Your task to perform on an android device: delete location history Image 0: 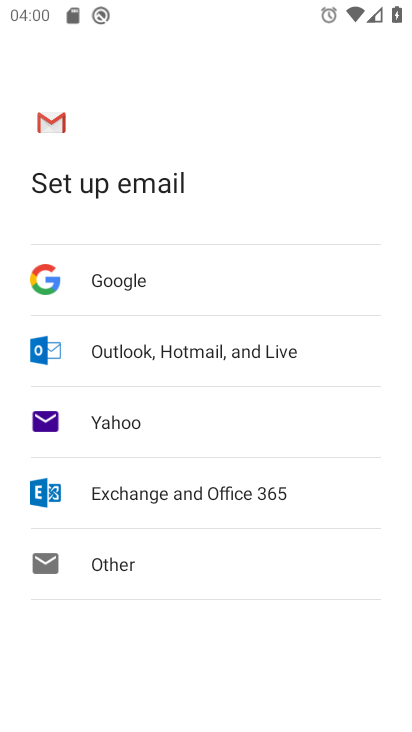
Step 0: press home button
Your task to perform on an android device: delete location history Image 1: 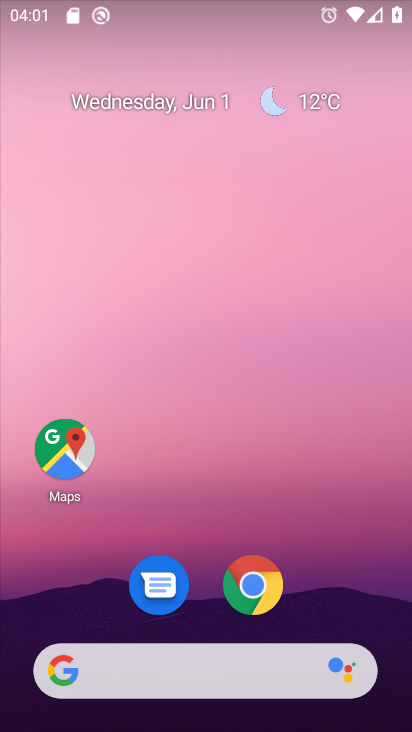
Step 1: drag from (198, 549) to (235, 35)
Your task to perform on an android device: delete location history Image 2: 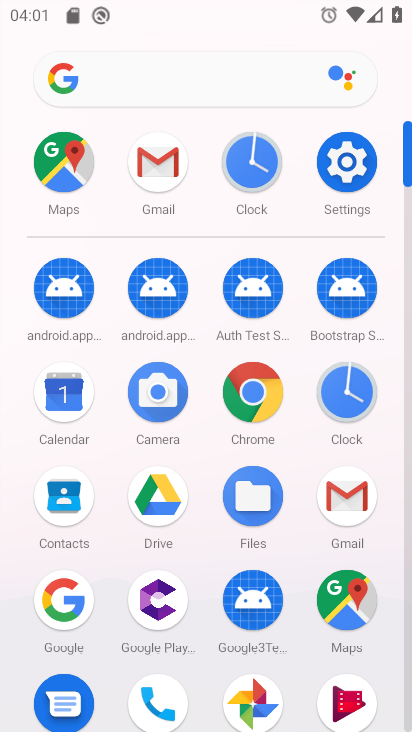
Step 2: click (351, 165)
Your task to perform on an android device: delete location history Image 3: 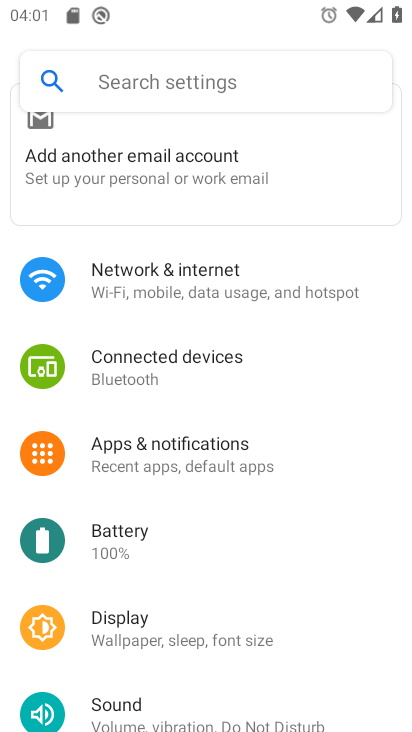
Step 3: press home button
Your task to perform on an android device: delete location history Image 4: 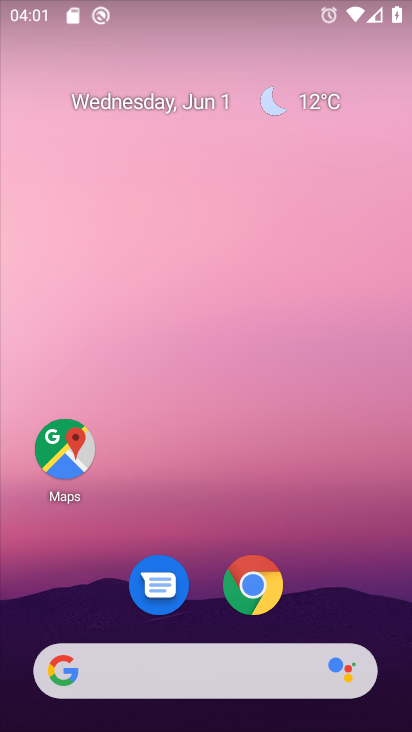
Step 4: click (68, 448)
Your task to perform on an android device: delete location history Image 5: 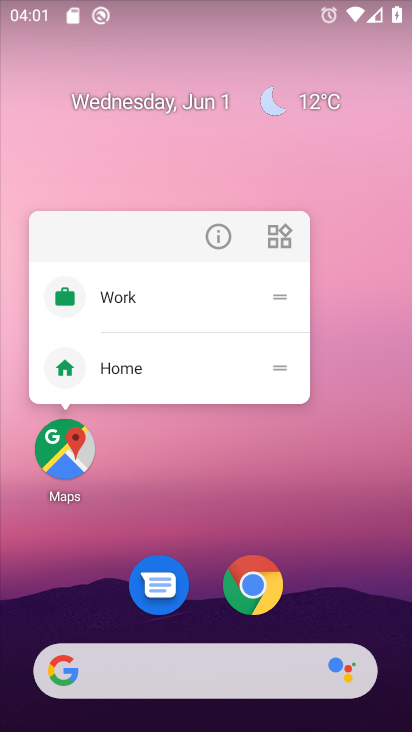
Step 5: click (68, 448)
Your task to perform on an android device: delete location history Image 6: 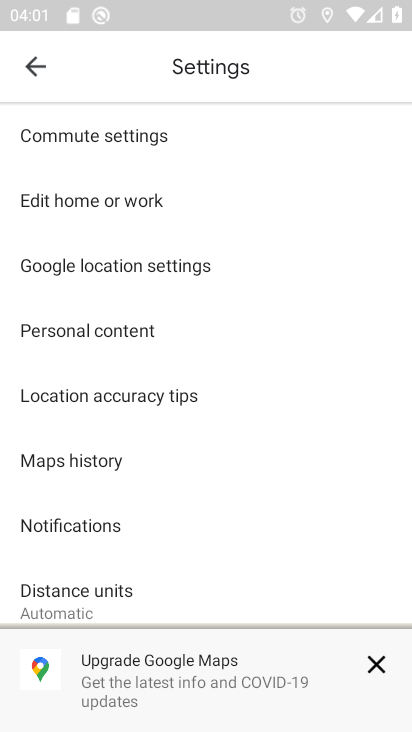
Step 6: click (34, 62)
Your task to perform on an android device: delete location history Image 7: 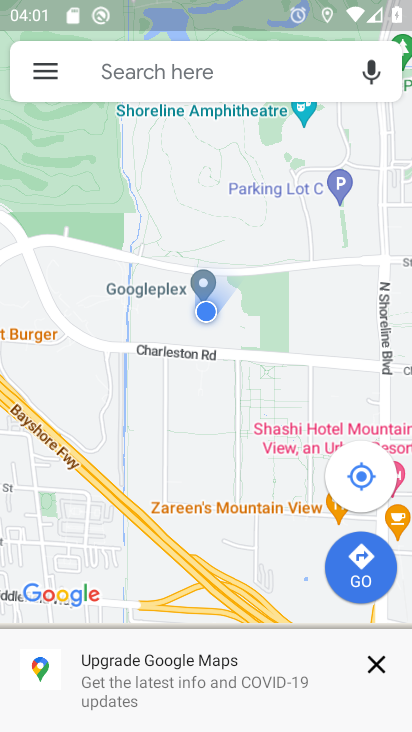
Step 7: click (47, 70)
Your task to perform on an android device: delete location history Image 8: 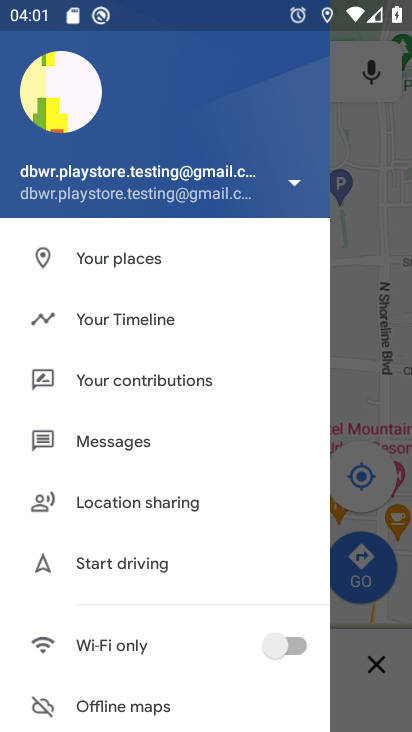
Step 8: click (98, 308)
Your task to perform on an android device: delete location history Image 9: 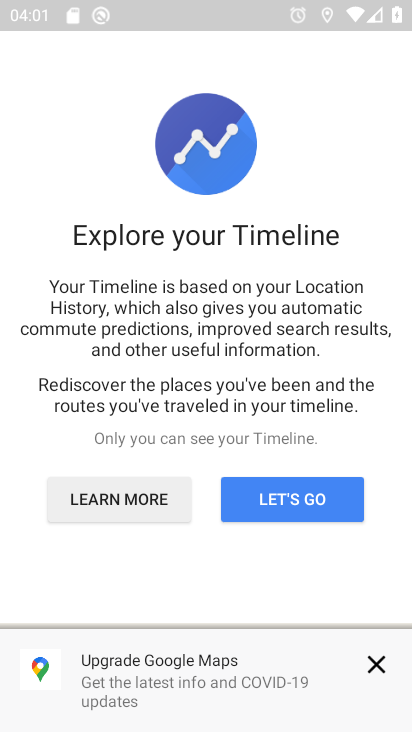
Step 9: click (290, 488)
Your task to perform on an android device: delete location history Image 10: 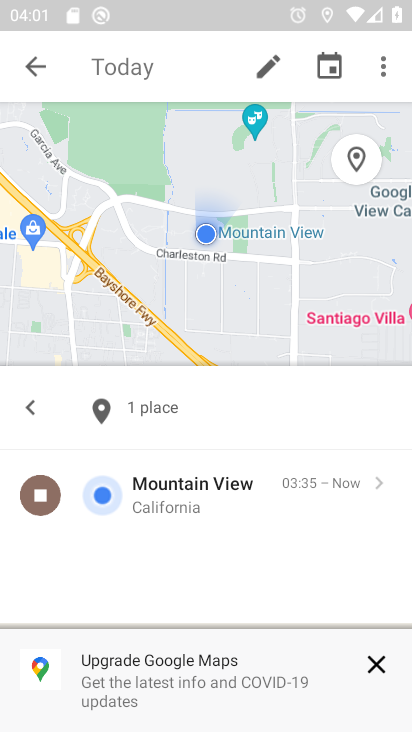
Step 10: click (382, 69)
Your task to perform on an android device: delete location history Image 11: 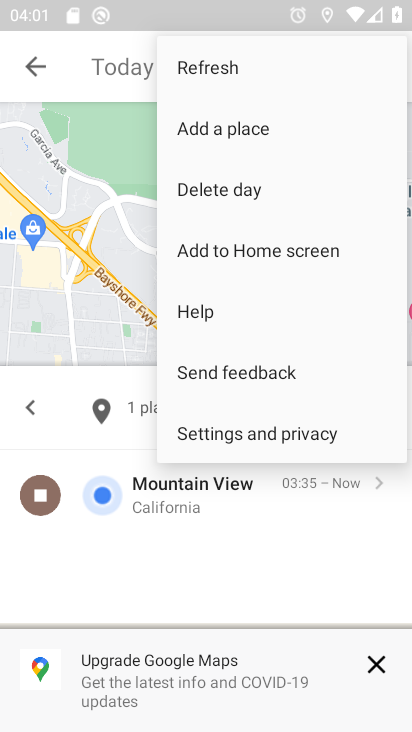
Step 11: click (282, 426)
Your task to perform on an android device: delete location history Image 12: 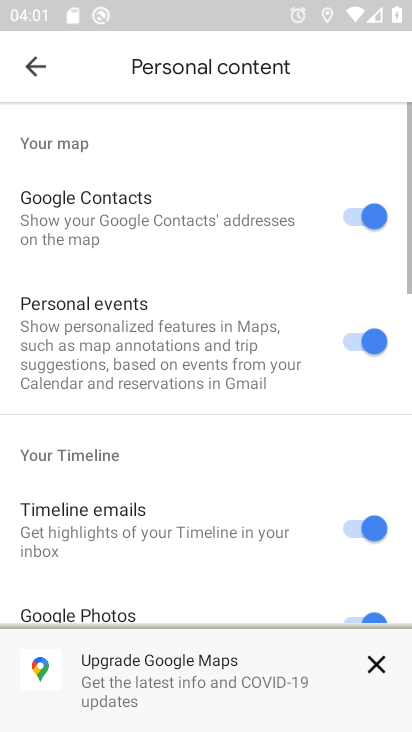
Step 12: drag from (237, 582) to (269, 108)
Your task to perform on an android device: delete location history Image 13: 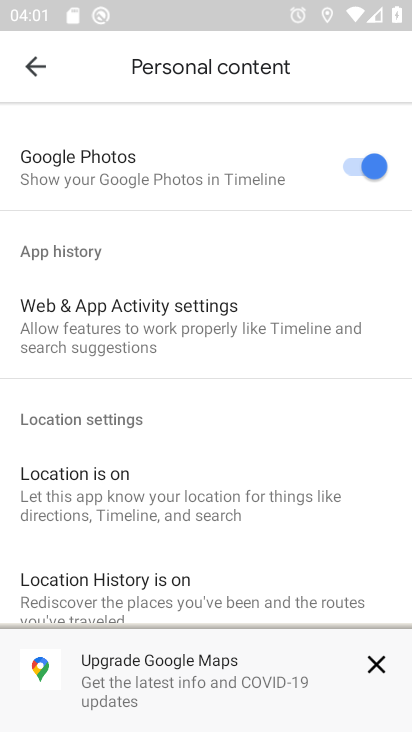
Step 13: drag from (199, 566) to (245, 144)
Your task to perform on an android device: delete location history Image 14: 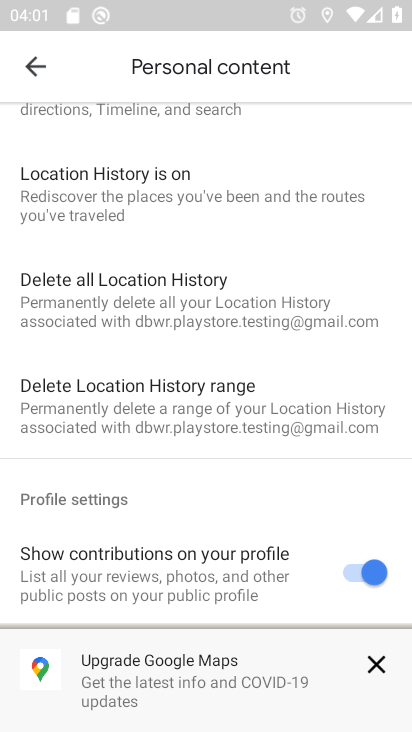
Step 14: click (171, 296)
Your task to perform on an android device: delete location history Image 15: 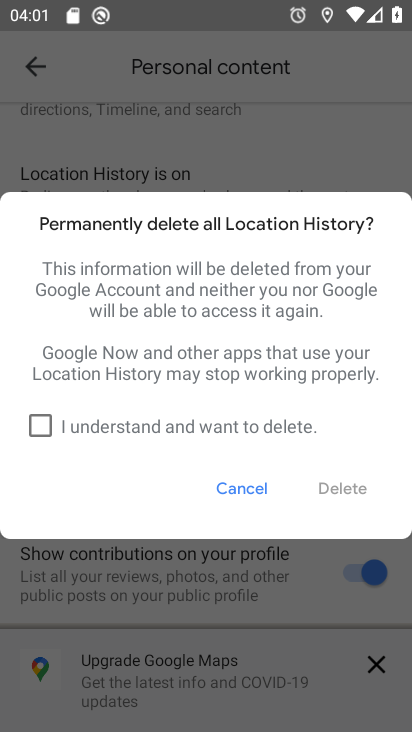
Step 15: click (44, 419)
Your task to perform on an android device: delete location history Image 16: 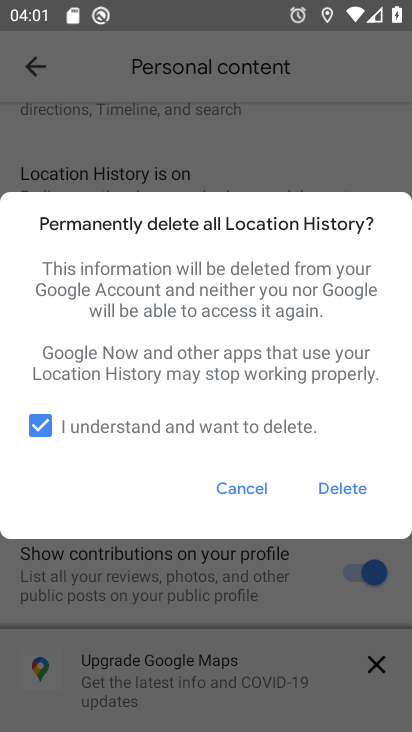
Step 16: click (347, 484)
Your task to perform on an android device: delete location history Image 17: 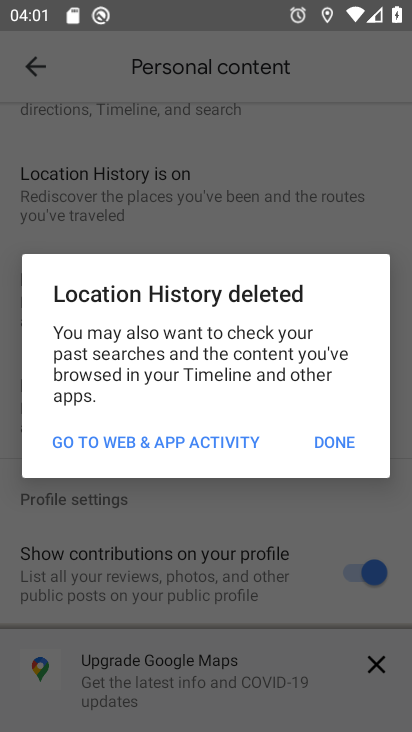
Step 17: click (334, 435)
Your task to perform on an android device: delete location history Image 18: 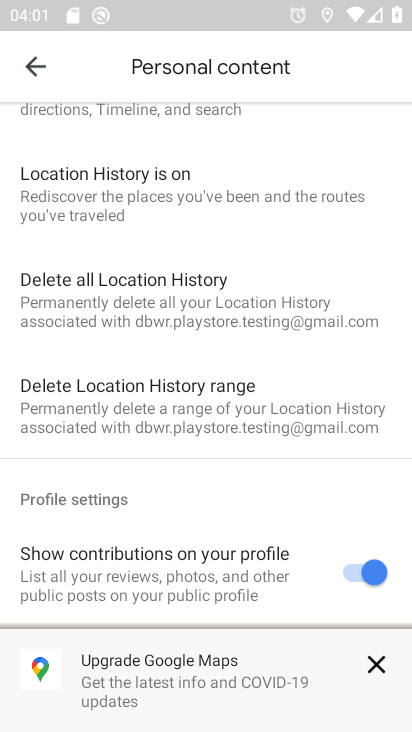
Step 18: task complete